Your task to perform on an android device: Open Yahoo.com Image 0: 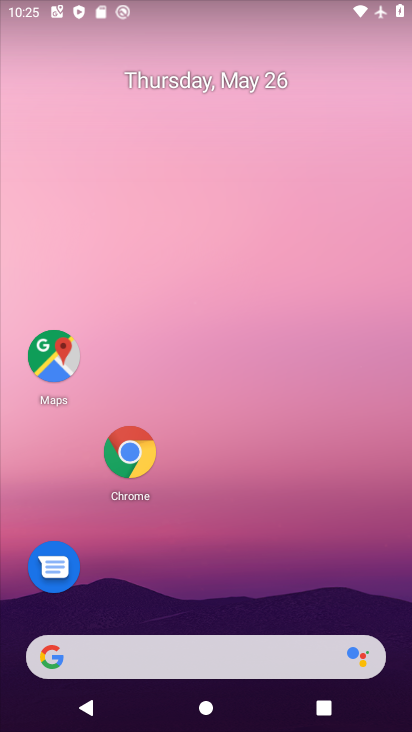
Step 0: click (133, 462)
Your task to perform on an android device: Open Yahoo.com Image 1: 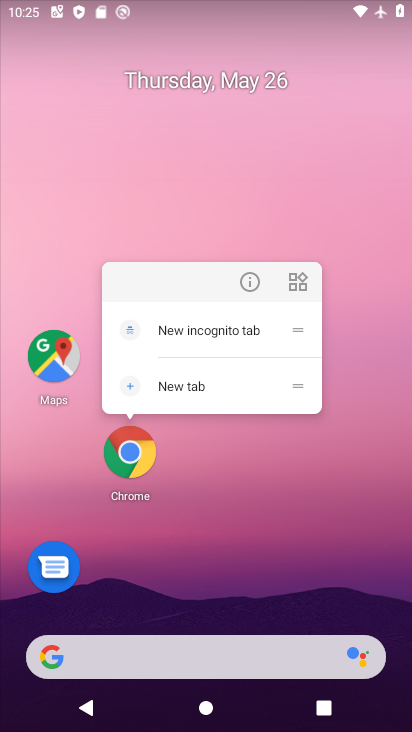
Step 1: click (137, 460)
Your task to perform on an android device: Open Yahoo.com Image 2: 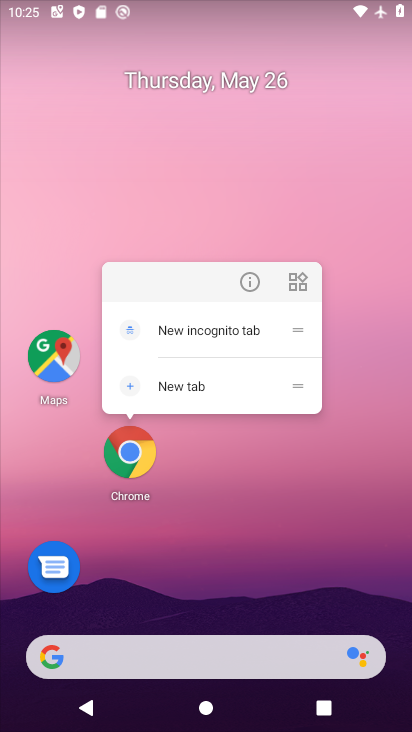
Step 2: click (122, 444)
Your task to perform on an android device: Open Yahoo.com Image 3: 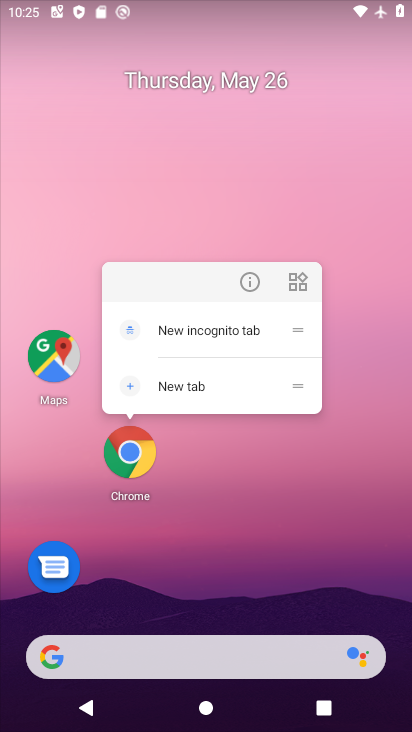
Step 3: click (127, 454)
Your task to perform on an android device: Open Yahoo.com Image 4: 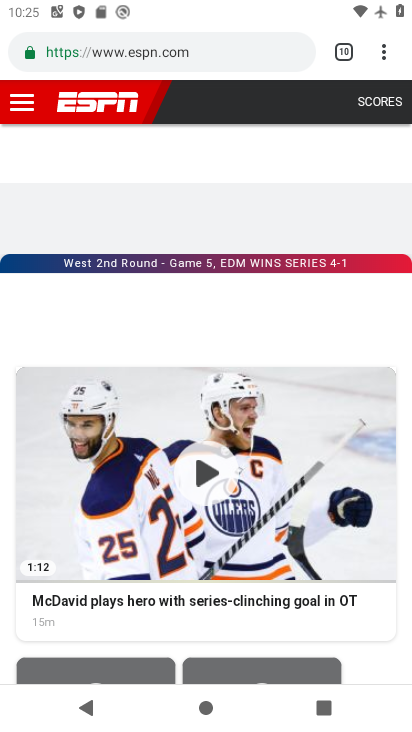
Step 4: drag from (382, 61) to (277, 104)
Your task to perform on an android device: Open Yahoo.com Image 5: 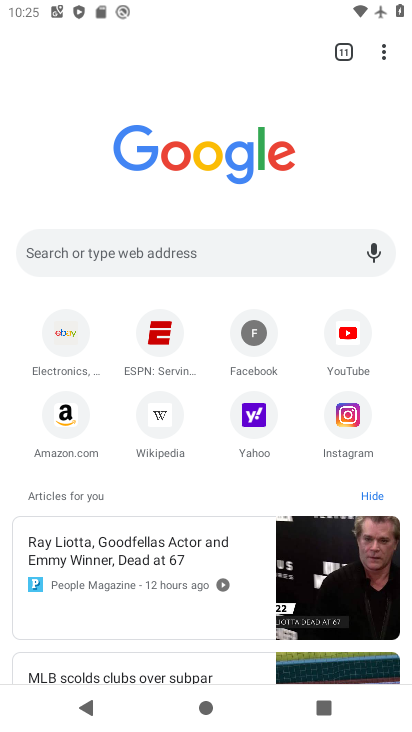
Step 5: click (251, 413)
Your task to perform on an android device: Open Yahoo.com Image 6: 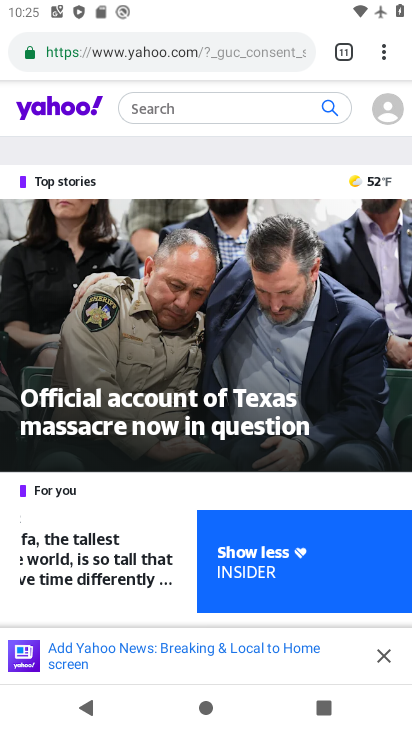
Step 6: task complete